Your task to perform on an android device: stop showing notifications on the lock screen Image 0: 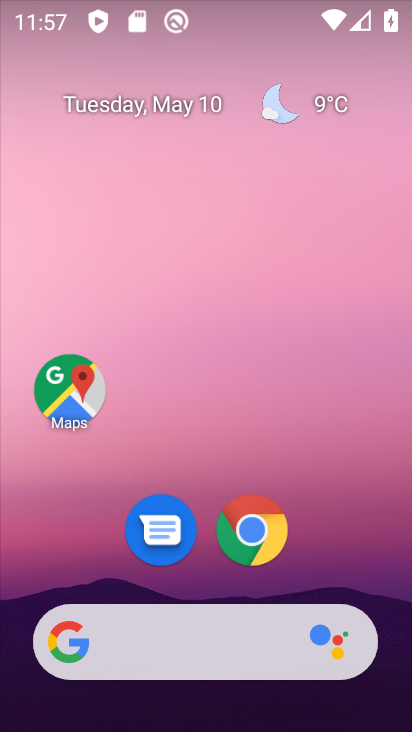
Step 0: press home button
Your task to perform on an android device: stop showing notifications on the lock screen Image 1: 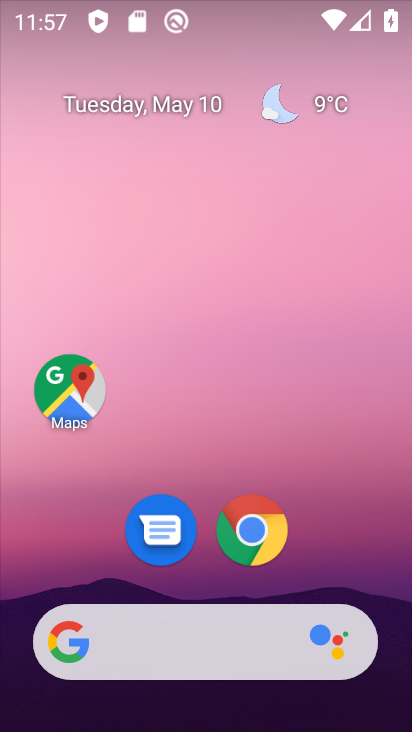
Step 1: drag from (365, 539) to (347, 0)
Your task to perform on an android device: stop showing notifications on the lock screen Image 2: 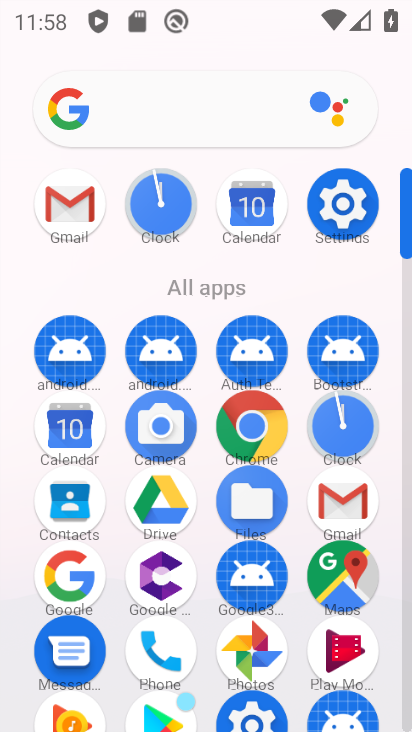
Step 2: click (330, 228)
Your task to perform on an android device: stop showing notifications on the lock screen Image 3: 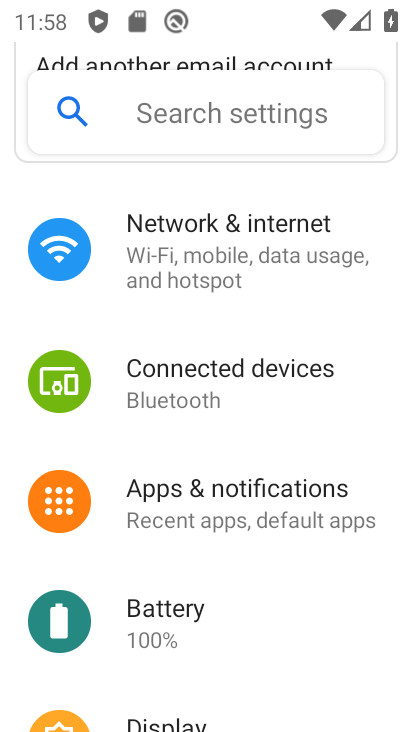
Step 3: drag from (290, 654) to (289, 510)
Your task to perform on an android device: stop showing notifications on the lock screen Image 4: 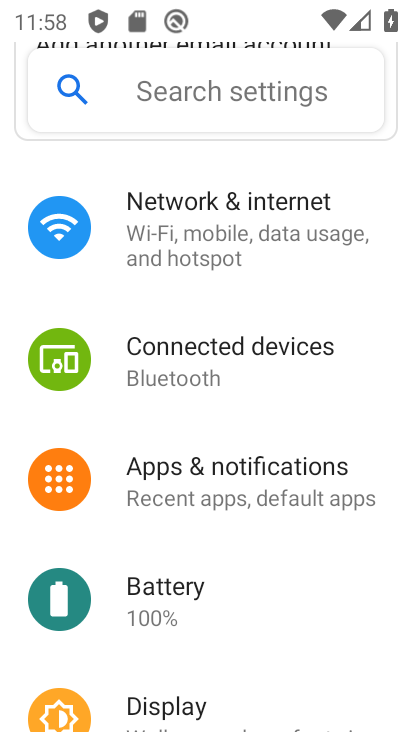
Step 4: drag from (289, 510) to (290, 468)
Your task to perform on an android device: stop showing notifications on the lock screen Image 5: 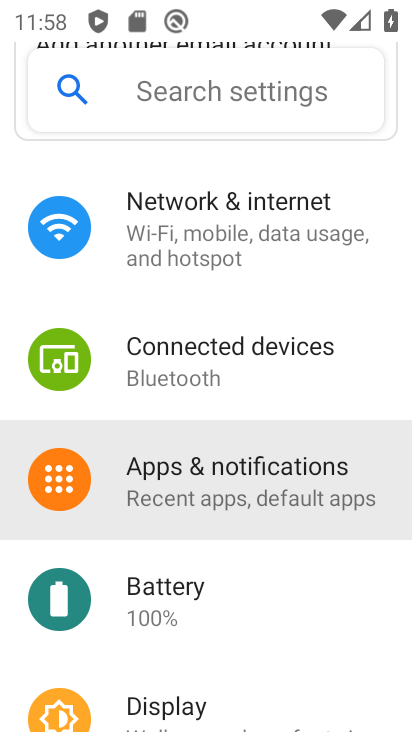
Step 5: click (290, 468)
Your task to perform on an android device: stop showing notifications on the lock screen Image 6: 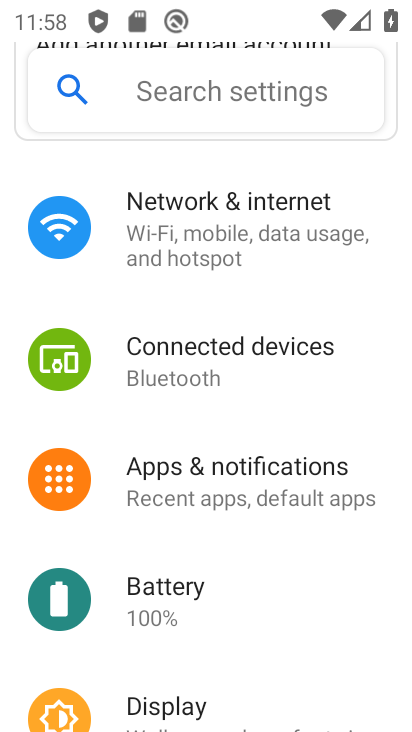
Step 6: click (290, 468)
Your task to perform on an android device: stop showing notifications on the lock screen Image 7: 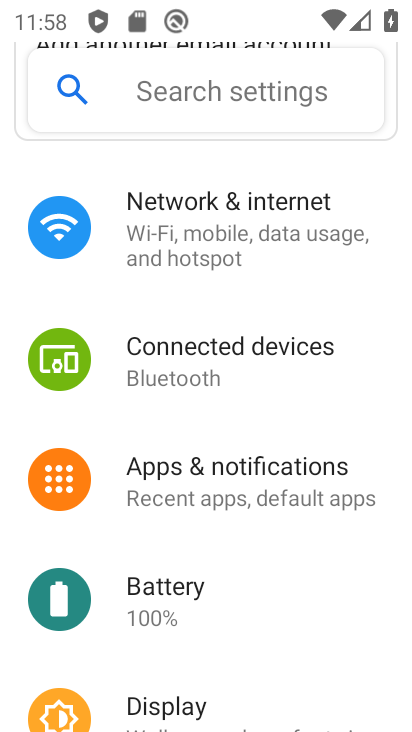
Step 7: click (287, 468)
Your task to perform on an android device: stop showing notifications on the lock screen Image 8: 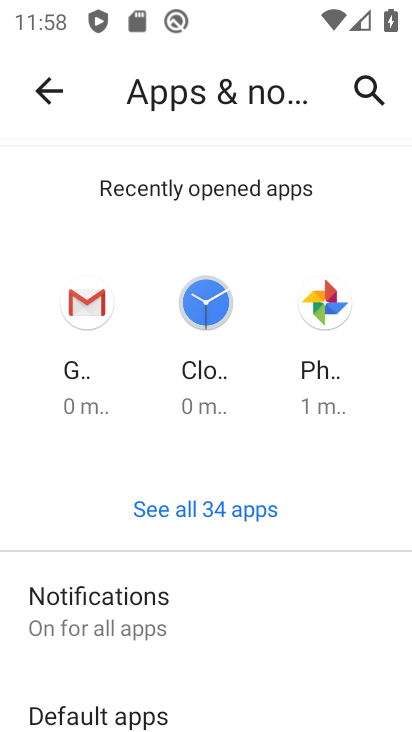
Step 8: click (159, 604)
Your task to perform on an android device: stop showing notifications on the lock screen Image 9: 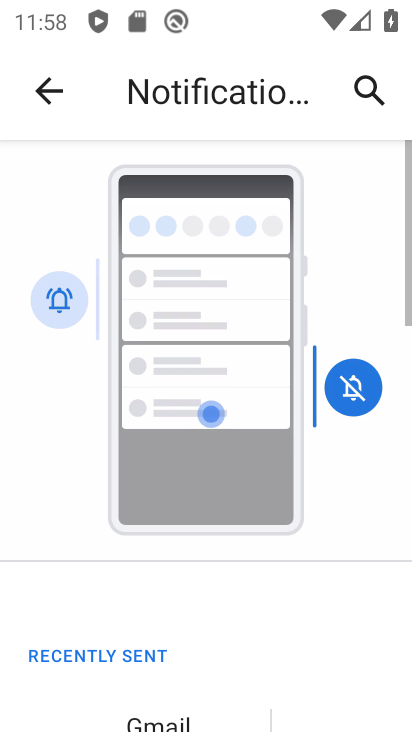
Step 9: drag from (289, 654) to (229, 346)
Your task to perform on an android device: stop showing notifications on the lock screen Image 10: 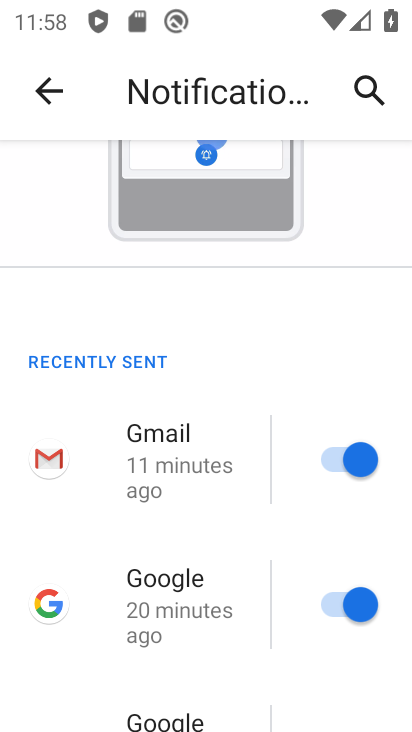
Step 10: drag from (241, 595) to (150, 15)
Your task to perform on an android device: stop showing notifications on the lock screen Image 11: 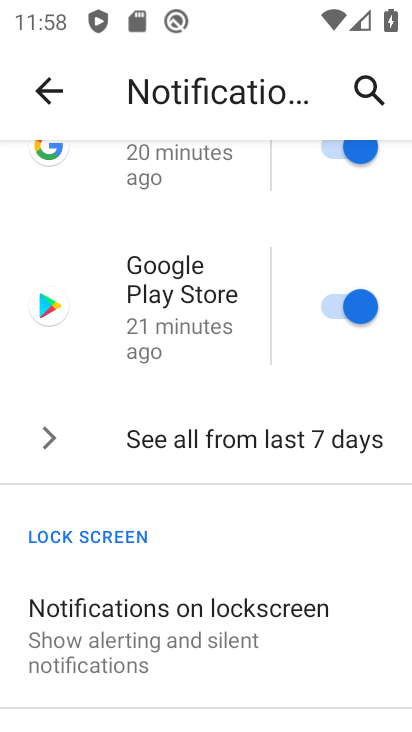
Step 11: click (218, 601)
Your task to perform on an android device: stop showing notifications on the lock screen Image 12: 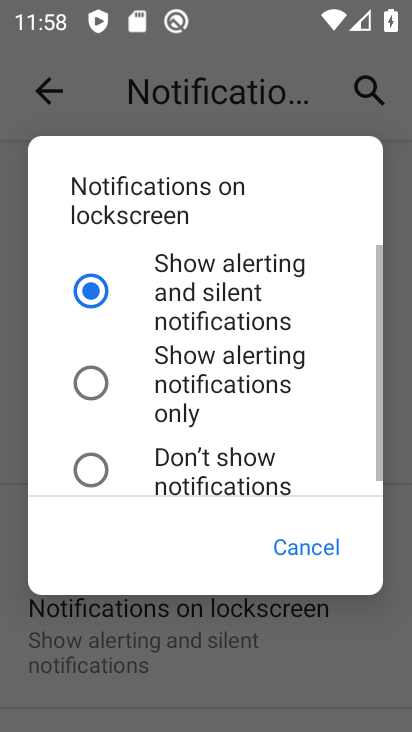
Step 12: click (163, 440)
Your task to perform on an android device: stop showing notifications on the lock screen Image 13: 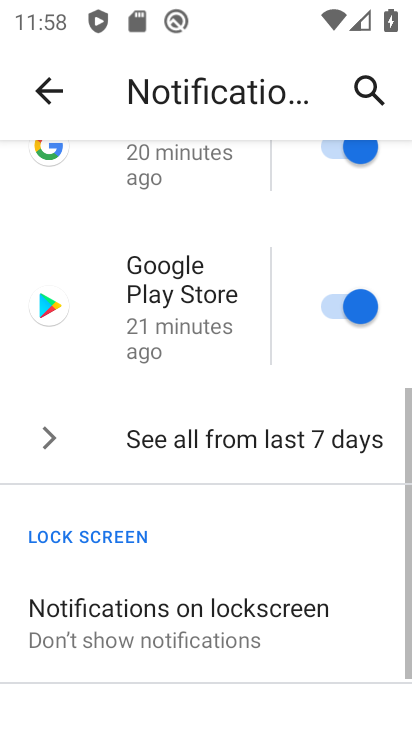
Step 13: task complete